Your task to perform on an android device: turn off improve location accuracy Image 0: 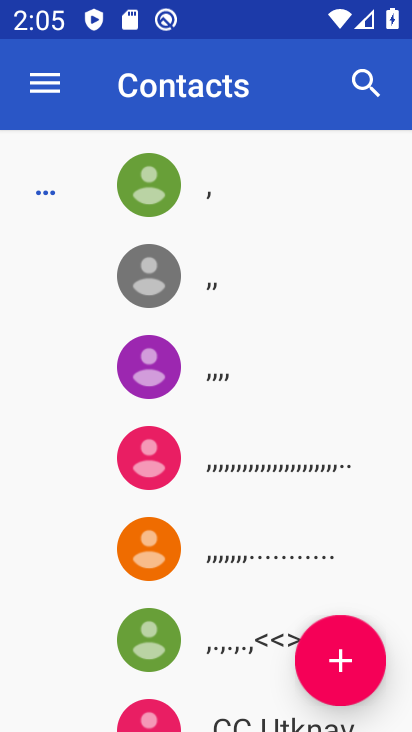
Step 0: press home button
Your task to perform on an android device: turn off improve location accuracy Image 1: 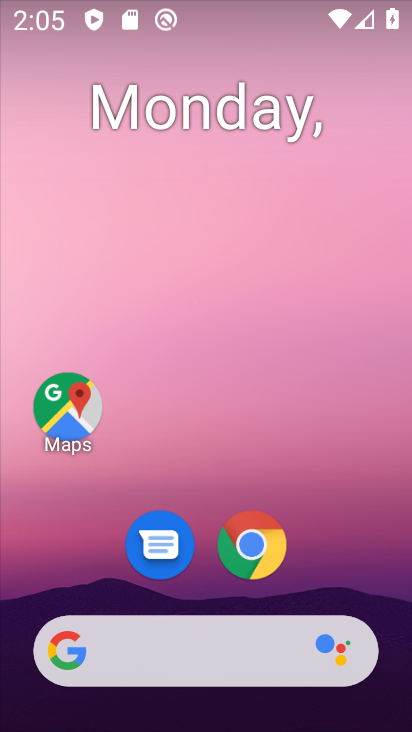
Step 1: drag from (213, 382) to (262, 35)
Your task to perform on an android device: turn off improve location accuracy Image 2: 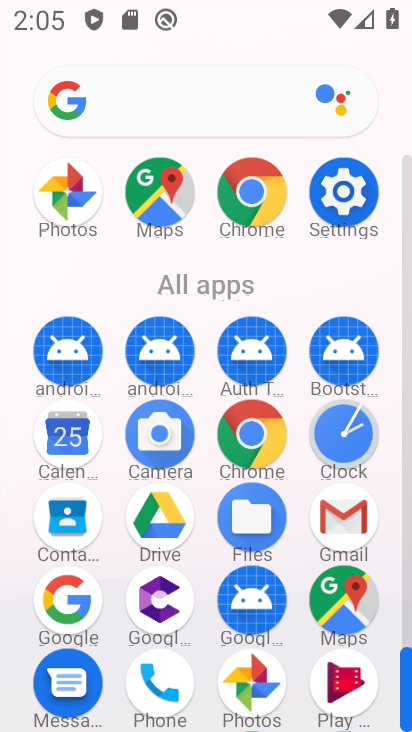
Step 2: click (353, 189)
Your task to perform on an android device: turn off improve location accuracy Image 3: 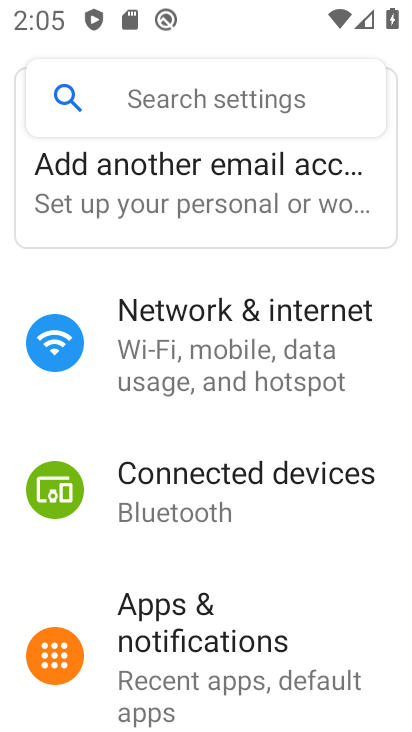
Step 3: drag from (193, 644) to (276, 57)
Your task to perform on an android device: turn off improve location accuracy Image 4: 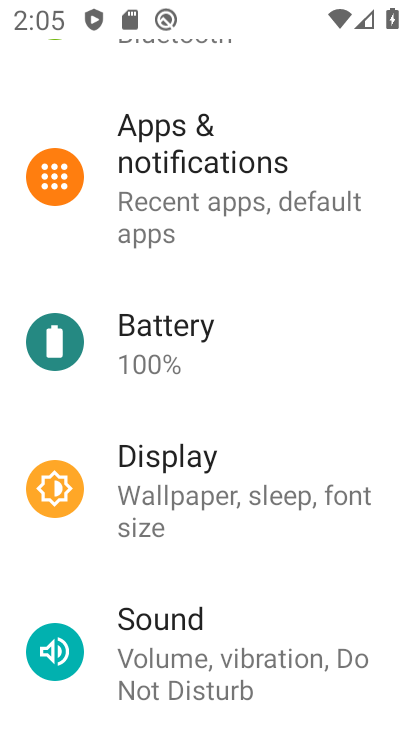
Step 4: drag from (217, 656) to (270, 64)
Your task to perform on an android device: turn off improve location accuracy Image 5: 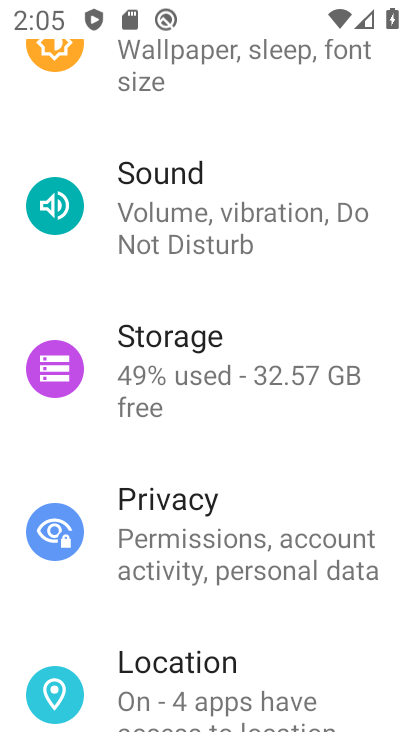
Step 5: click (185, 666)
Your task to perform on an android device: turn off improve location accuracy Image 6: 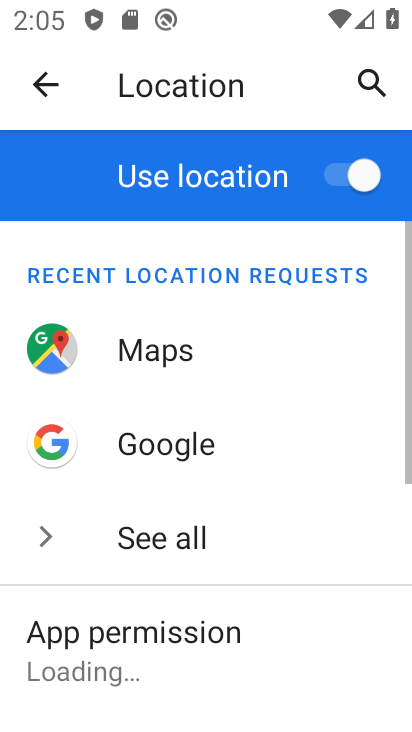
Step 6: drag from (223, 575) to (266, 83)
Your task to perform on an android device: turn off improve location accuracy Image 7: 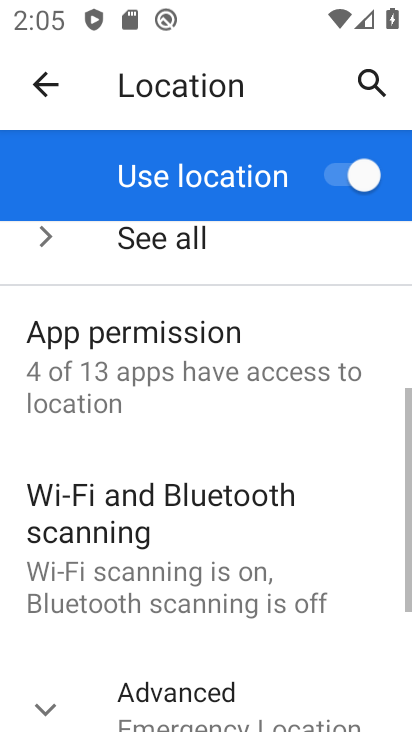
Step 7: click (180, 713)
Your task to perform on an android device: turn off improve location accuracy Image 8: 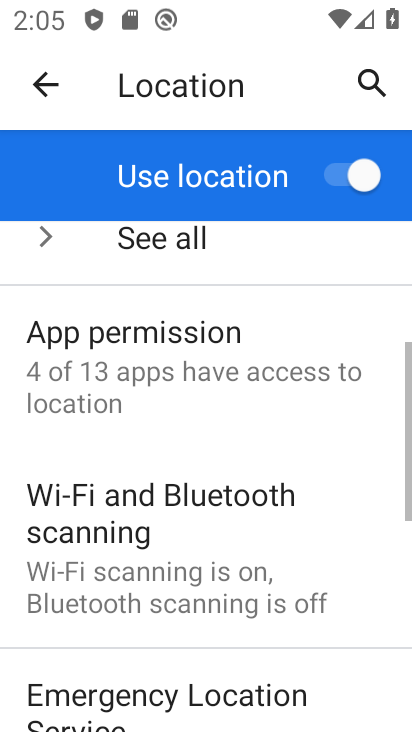
Step 8: drag from (175, 545) to (262, 75)
Your task to perform on an android device: turn off improve location accuracy Image 9: 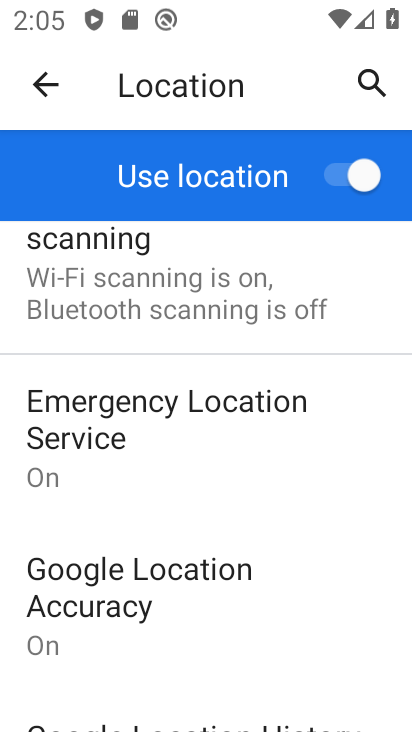
Step 9: click (108, 593)
Your task to perform on an android device: turn off improve location accuracy Image 10: 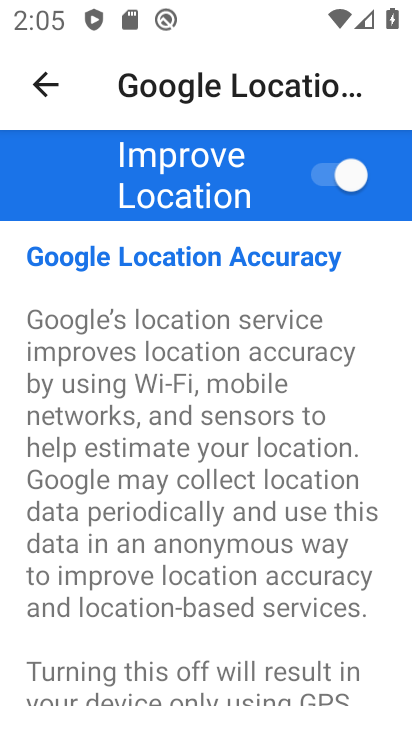
Step 10: click (351, 160)
Your task to perform on an android device: turn off improve location accuracy Image 11: 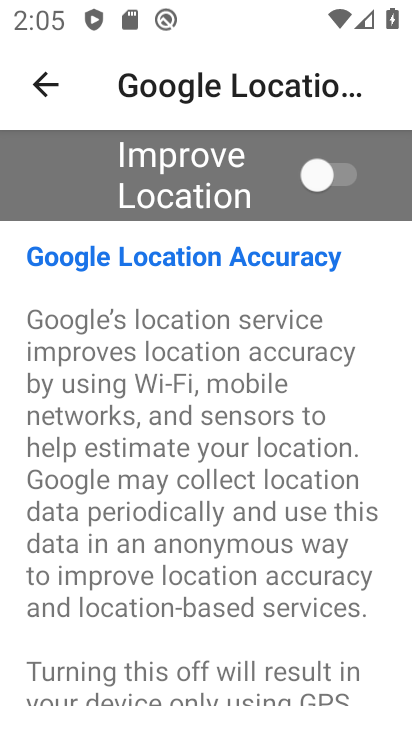
Step 11: task complete